Your task to perform on an android device: see sites visited before in the chrome app Image 0: 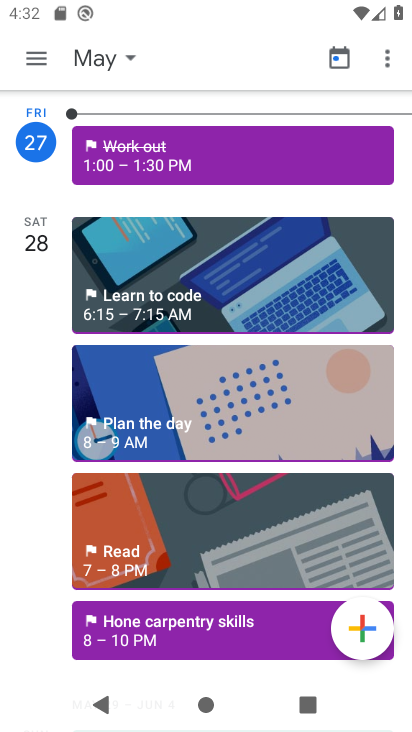
Step 0: press back button
Your task to perform on an android device: see sites visited before in the chrome app Image 1: 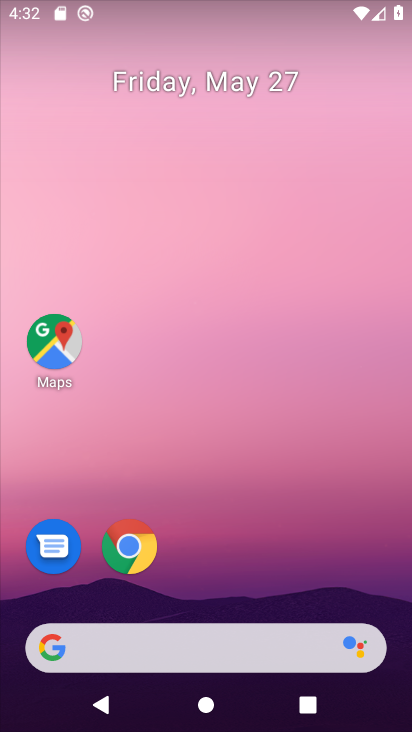
Step 1: drag from (299, 528) to (275, 38)
Your task to perform on an android device: see sites visited before in the chrome app Image 2: 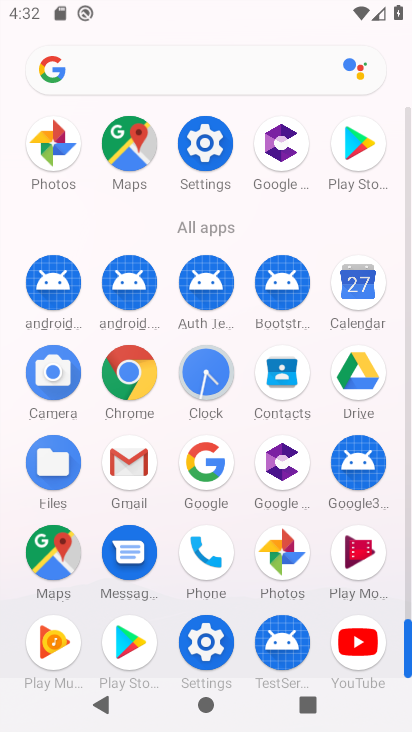
Step 2: click (124, 366)
Your task to perform on an android device: see sites visited before in the chrome app Image 3: 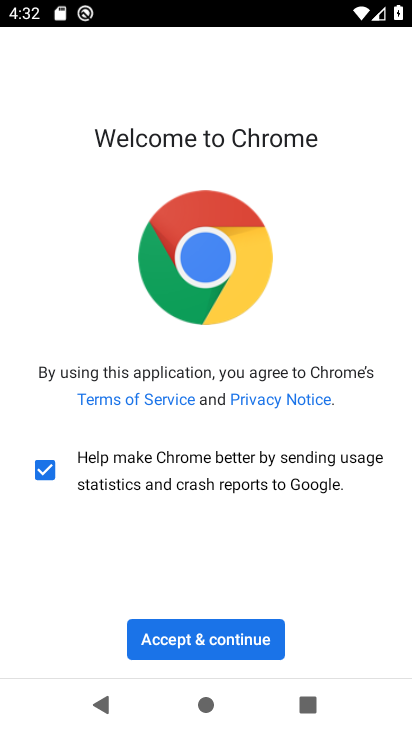
Step 3: click (220, 644)
Your task to perform on an android device: see sites visited before in the chrome app Image 4: 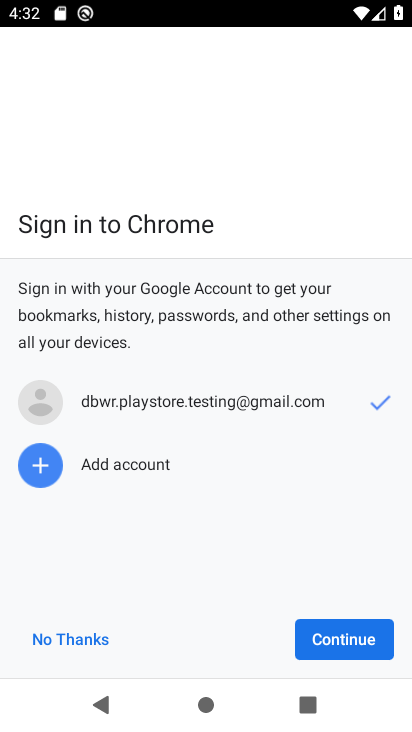
Step 4: click (332, 634)
Your task to perform on an android device: see sites visited before in the chrome app Image 5: 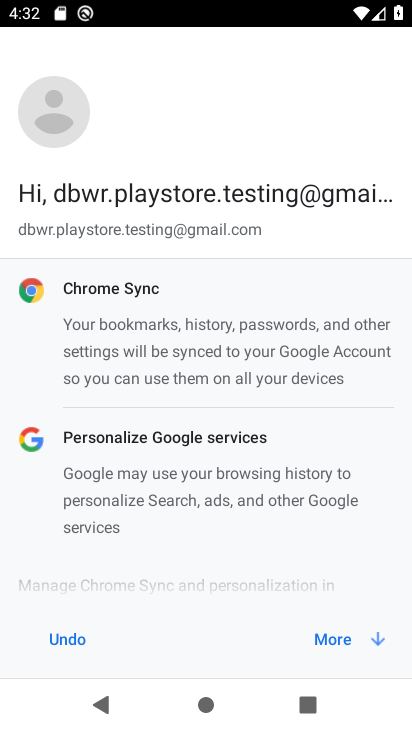
Step 5: click (316, 642)
Your task to perform on an android device: see sites visited before in the chrome app Image 6: 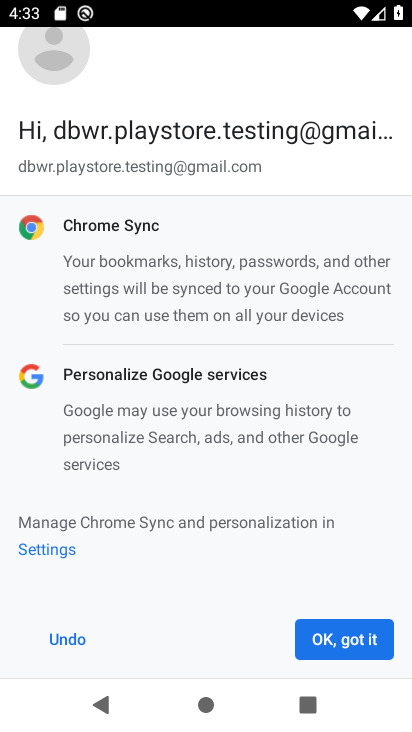
Step 6: click (346, 630)
Your task to perform on an android device: see sites visited before in the chrome app Image 7: 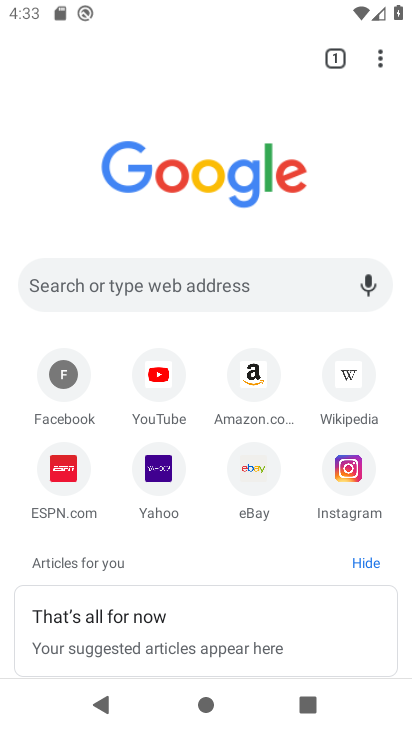
Step 7: task complete